Your task to perform on an android device: Open settings on Google Maps Image 0: 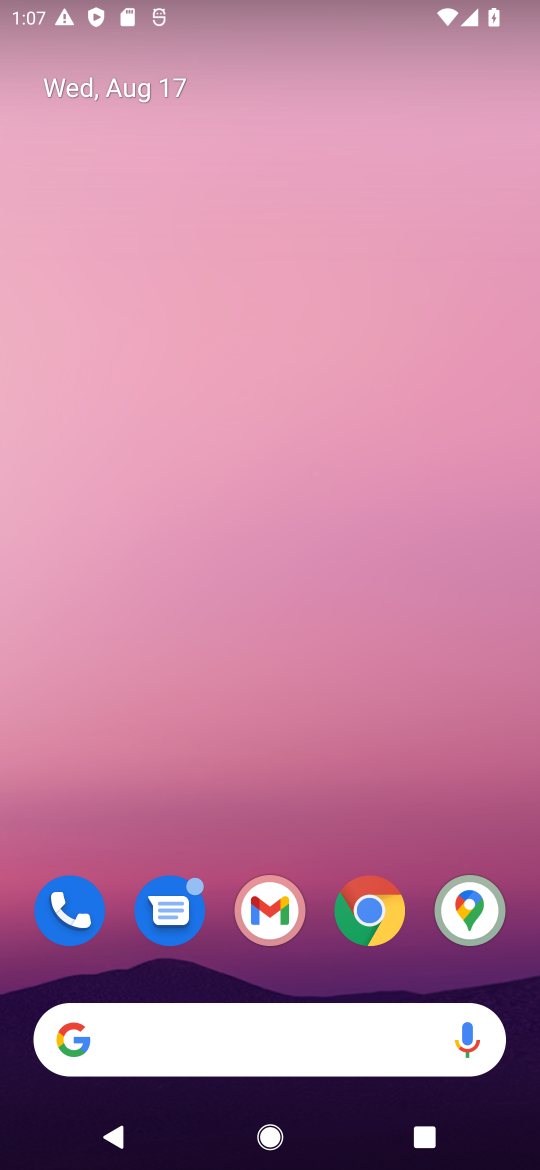
Step 0: click (481, 898)
Your task to perform on an android device: Open settings on Google Maps Image 1: 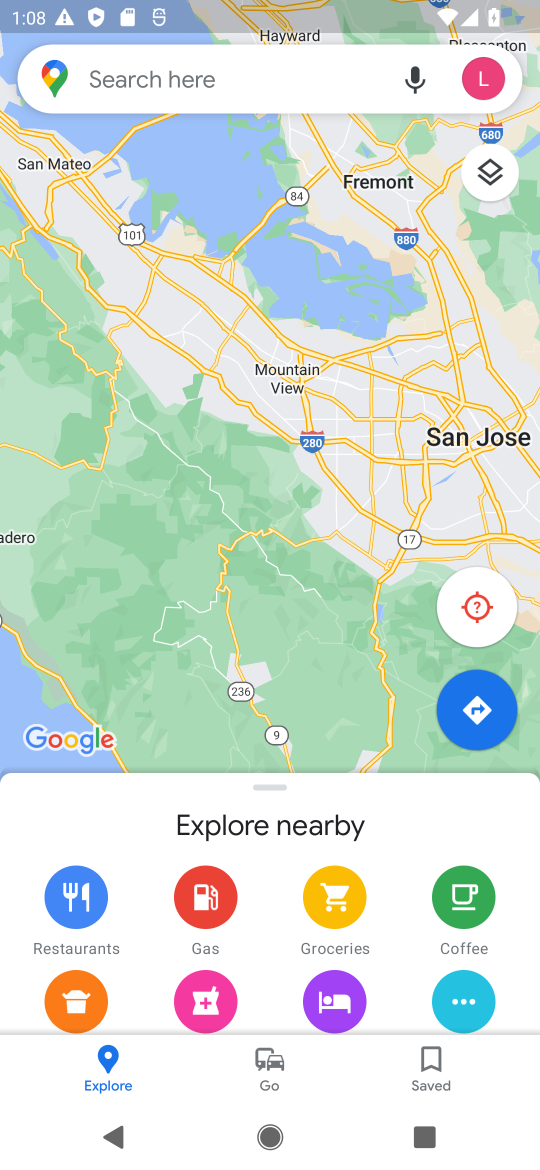
Step 1: click (187, 102)
Your task to perform on an android device: Open settings on Google Maps Image 2: 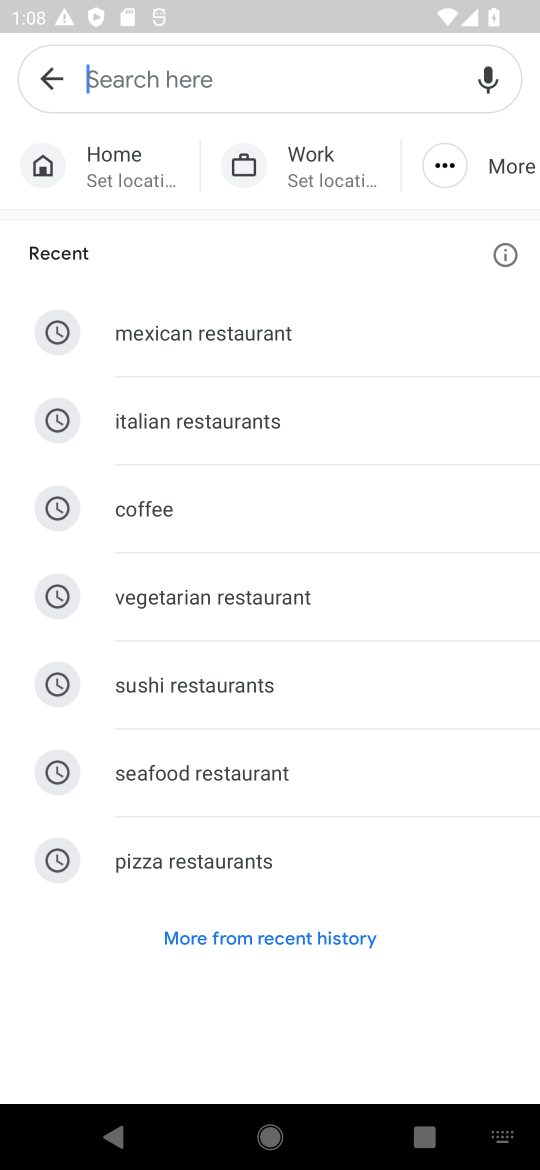
Step 2: press back button
Your task to perform on an android device: Open settings on Google Maps Image 3: 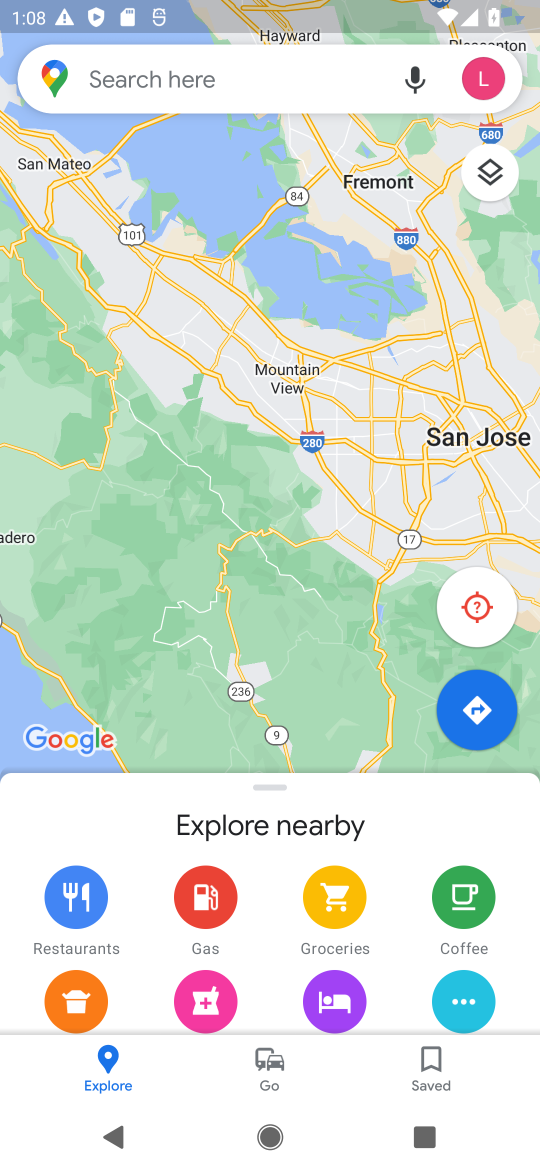
Step 3: click (482, 74)
Your task to perform on an android device: Open settings on Google Maps Image 4: 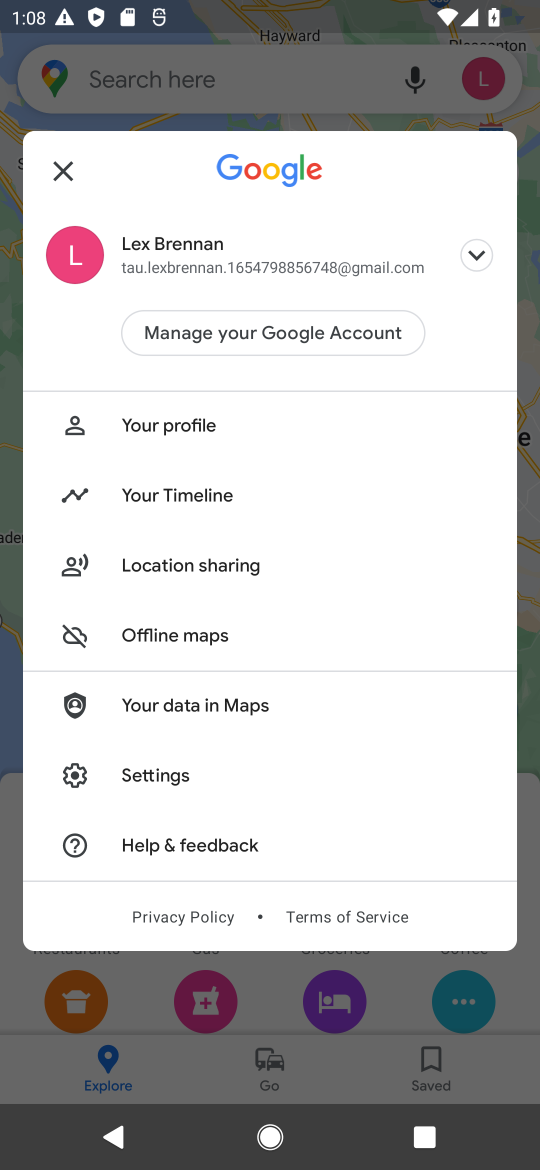
Step 4: click (143, 776)
Your task to perform on an android device: Open settings on Google Maps Image 5: 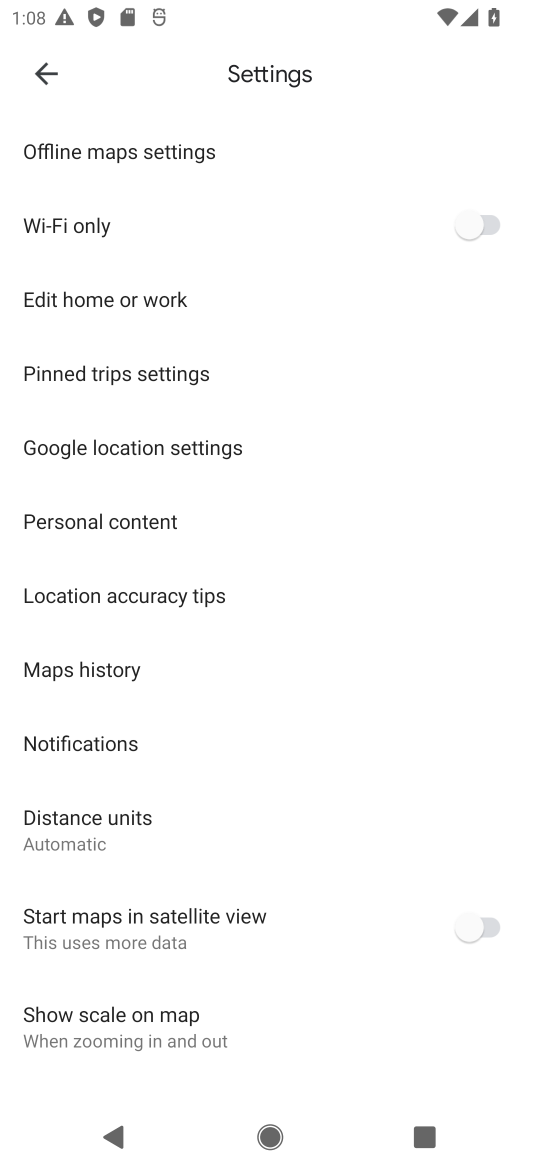
Step 5: task complete